Your task to perform on an android device: Open wifi settings Image 0: 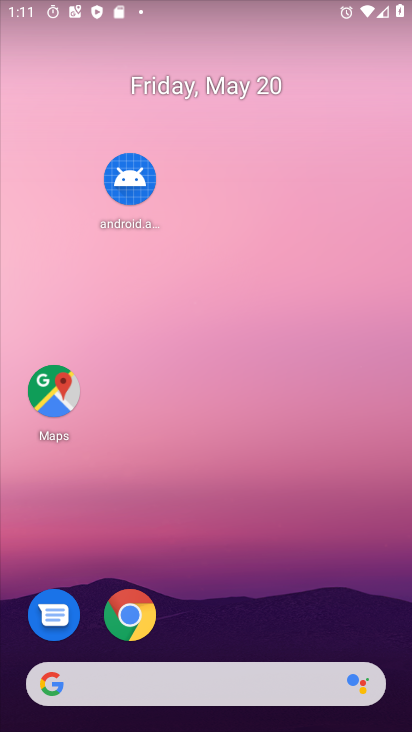
Step 0: drag from (308, 4) to (358, 517)
Your task to perform on an android device: Open wifi settings Image 1: 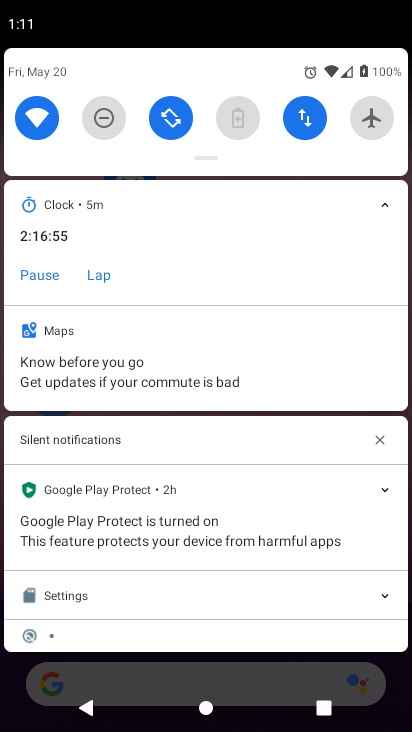
Step 1: click (35, 112)
Your task to perform on an android device: Open wifi settings Image 2: 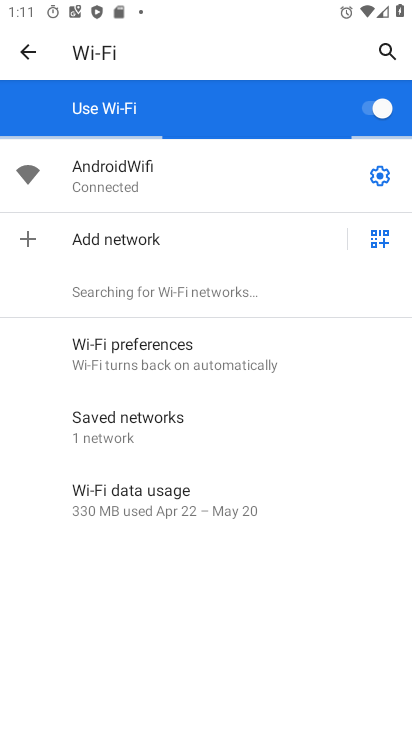
Step 2: task complete